Your task to perform on an android device: find which apps use the phone's location Image 0: 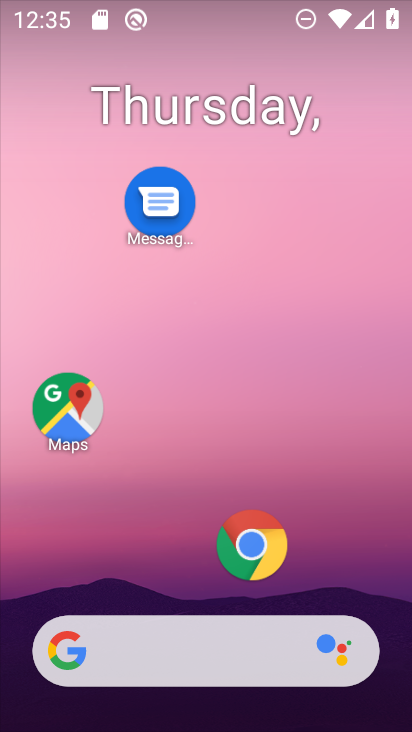
Step 0: drag from (177, 581) to (235, 166)
Your task to perform on an android device: find which apps use the phone's location Image 1: 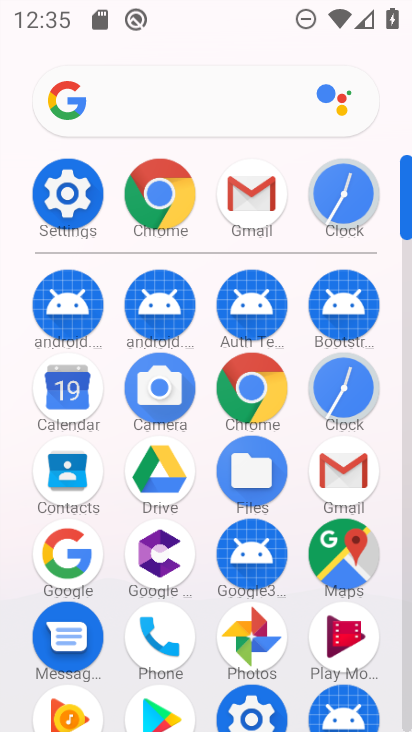
Step 1: click (82, 195)
Your task to perform on an android device: find which apps use the phone's location Image 2: 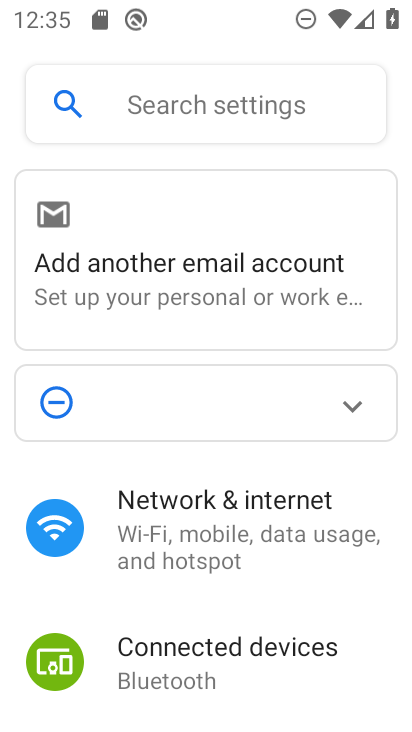
Step 2: drag from (249, 628) to (261, 276)
Your task to perform on an android device: find which apps use the phone's location Image 3: 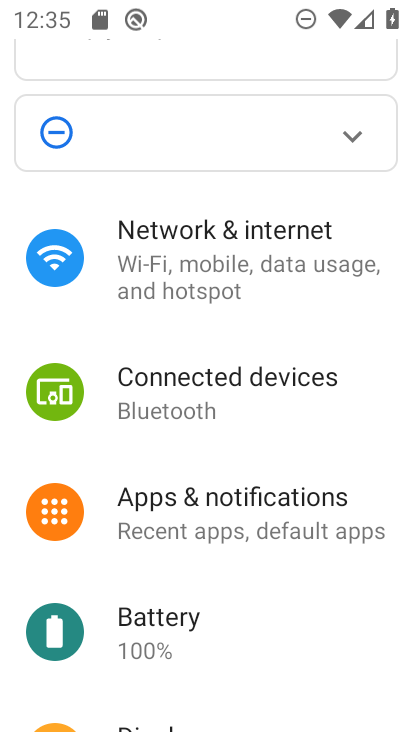
Step 3: drag from (228, 599) to (265, 344)
Your task to perform on an android device: find which apps use the phone's location Image 4: 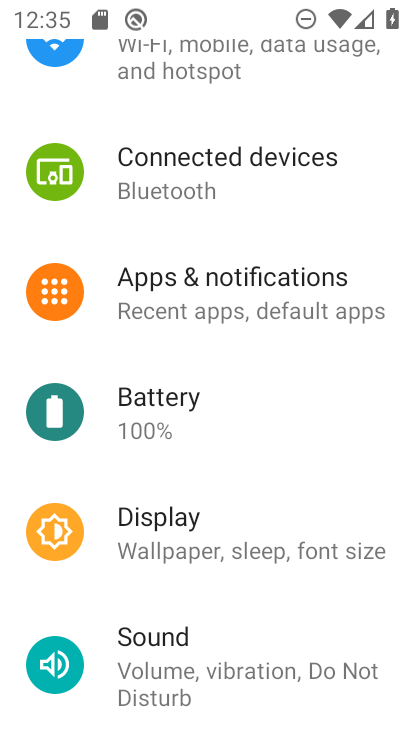
Step 4: drag from (256, 631) to (271, 368)
Your task to perform on an android device: find which apps use the phone's location Image 5: 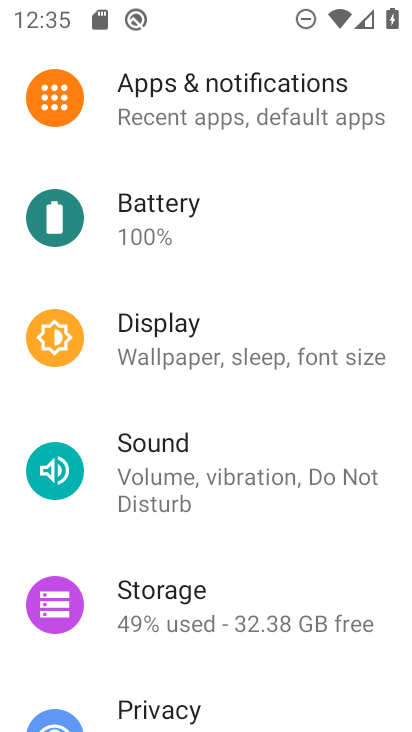
Step 5: drag from (232, 618) to (260, 363)
Your task to perform on an android device: find which apps use the phone's location Image 6: 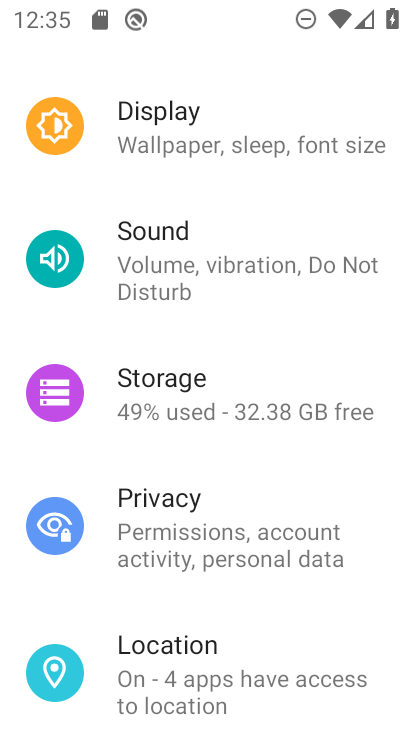
Step 6: click (265, 651)
Your task to perform on an android device: find which apps use the phone's location Image 7: 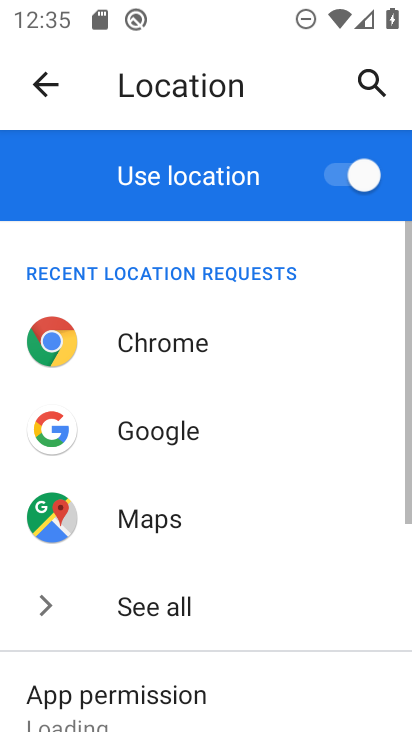
Step 7: drag from (267, 593) to (290, 397)
Your task to perform on an android device: find which apps use the phone's location Image 8: 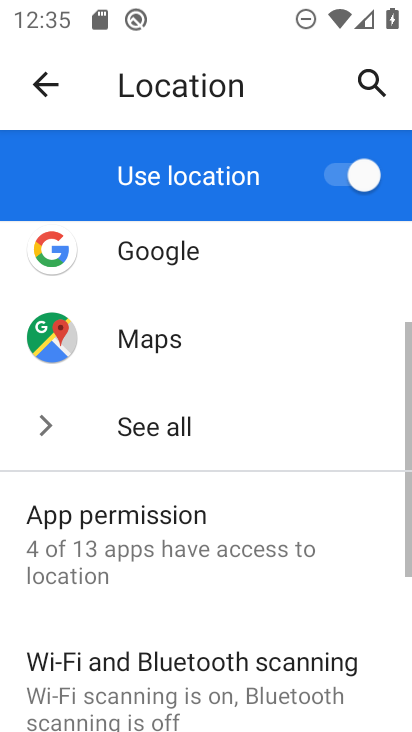
Step 8: drag from (285, 623) to (308, 407)
Your task to perform on an android device: find which apps use the phone's location Image 9: 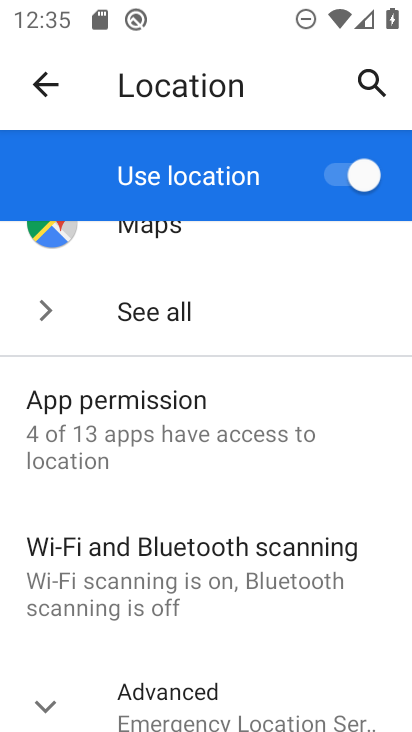
Step 9: drag from (300, 559) to (328, 366)
Your task to perform on an android device: find which apps use the phone's location Image 10: 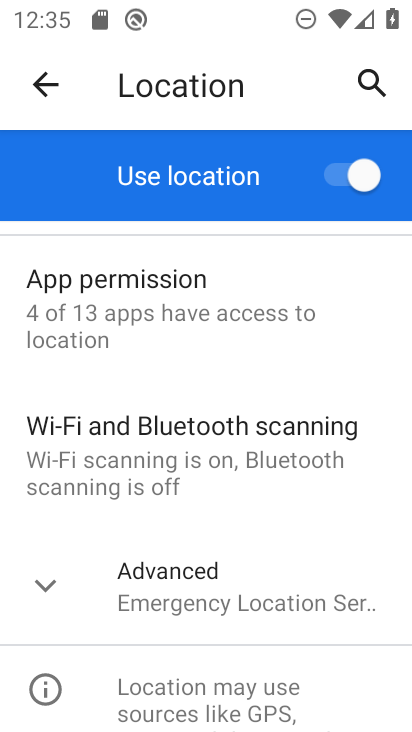
Step 10: drag from (330, 575) to (346, 392)
Your task to perform on an android device: find which apps use the phone's location Image 11: 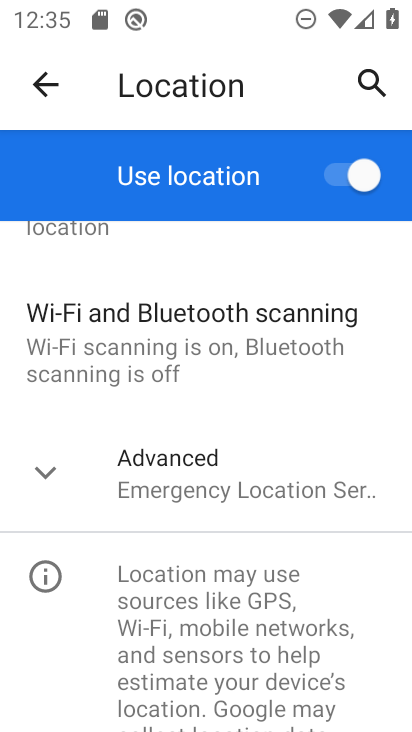
Step 11: drag from (290, 544) to (295, 457)
Your task to perform on an android device: find which apps use the phone's location Image 12: 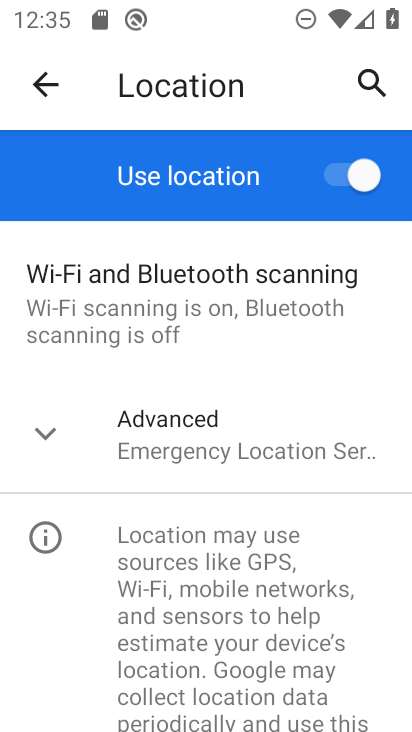
Step 12: drag from (315, 383) to (336, 578)
Your task to perform on an android device: find which apps use the phone's location Image 13: 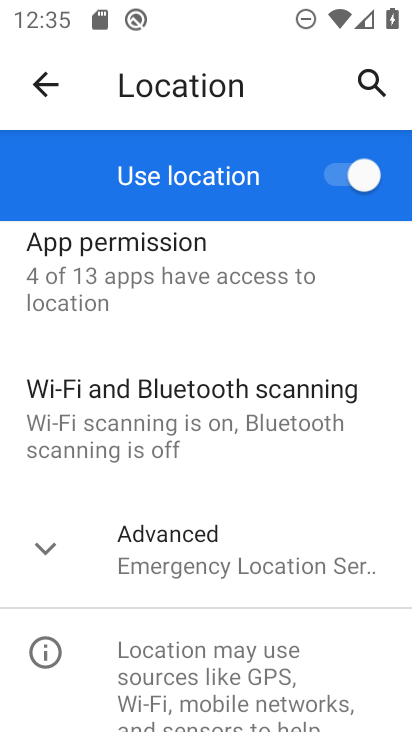
Step 13: drag from (281, 392) to (281, 675)
Your task to perform on an android device: find which apps use the phone's location Image 14: 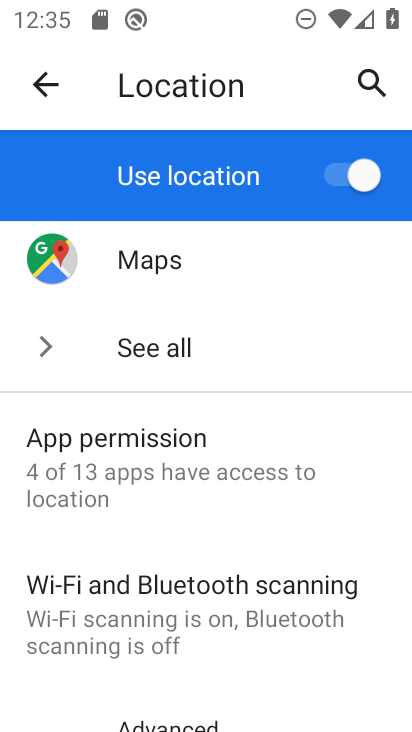
Step 14: click (243, 460)
Your task to perform on an android device: find which apps use the phone's location Image 15: 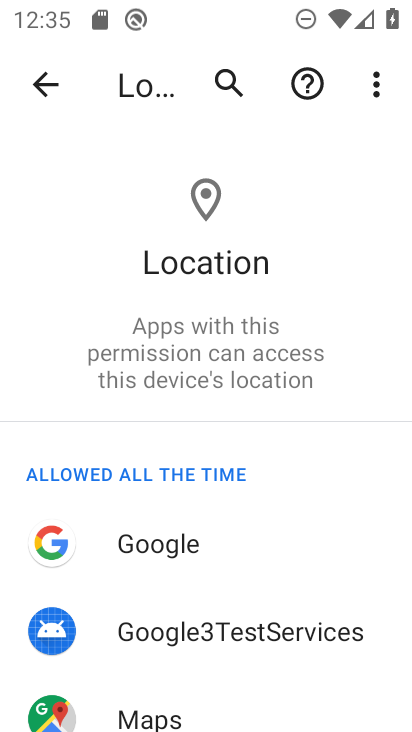
Step 15: task complete